Your task to perform on an android device: turn off priority inbox in the gmail app Image 0: 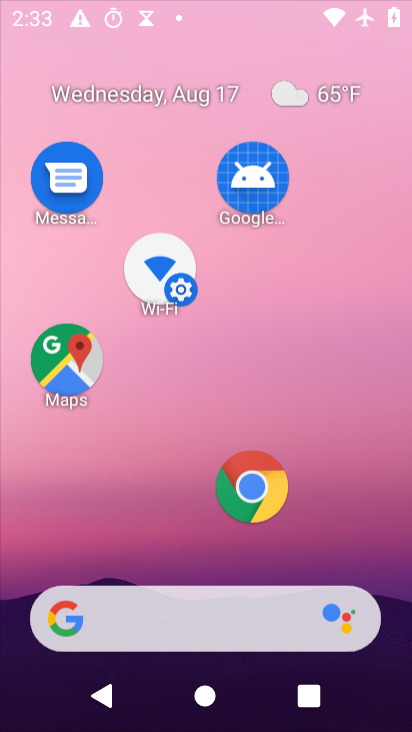
Step 0: press home button
Your task to perform on an android device: turn off priority inbox in the gmail app Image 1: 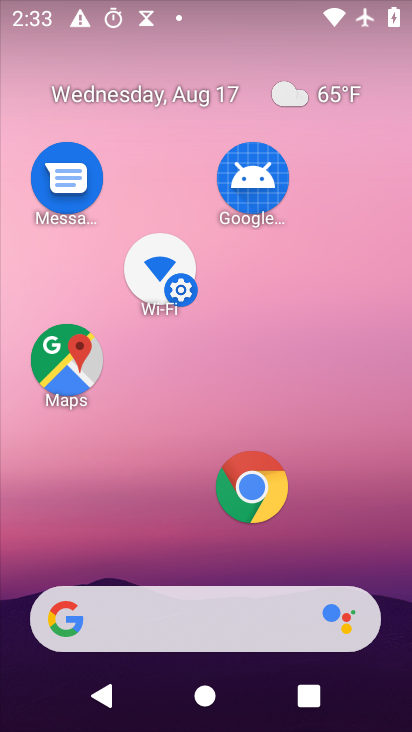
Step 1: drag from (331, 235) to (283, 9)
Your task to perform on an android device: turn off priority inbox in the gmail app Image 2: 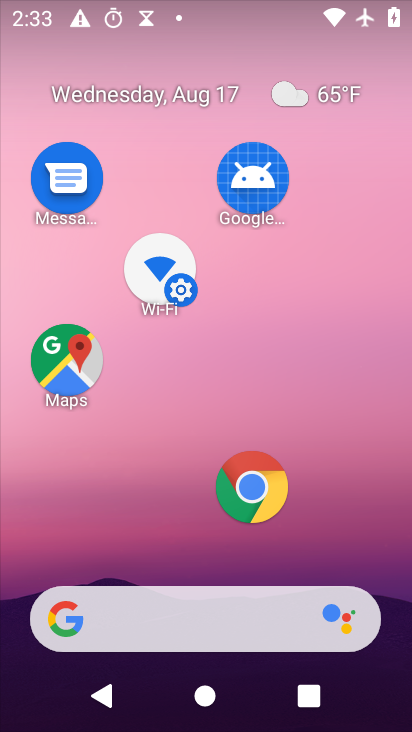
Step 2: drag from (352, 206) to (340, 3)
Your task to perform on an android device: turn off priority inbox in the gmail app Image 3: 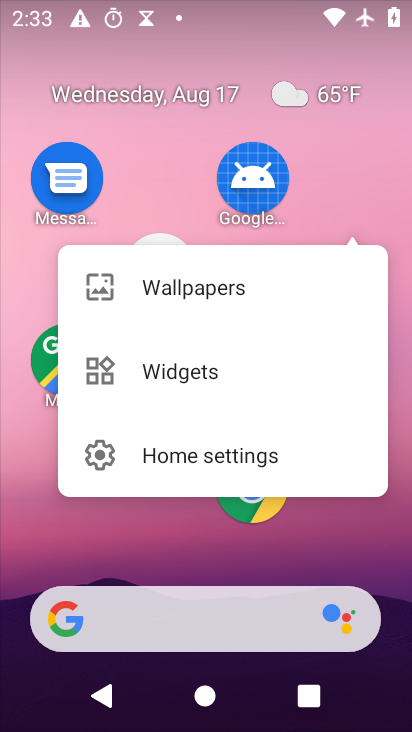
Step 3: click (335, 528)
Your task to perform on an android device: turn off priority inbox in the gmail app Image 4: 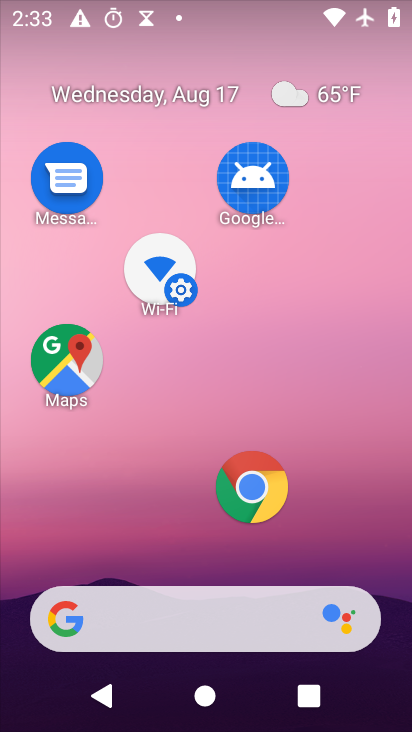
Step 4: drag from (348, 39) to (270, 4)
Your task to perform on an android device: turn off priority inbox in the gmail app Image 5: 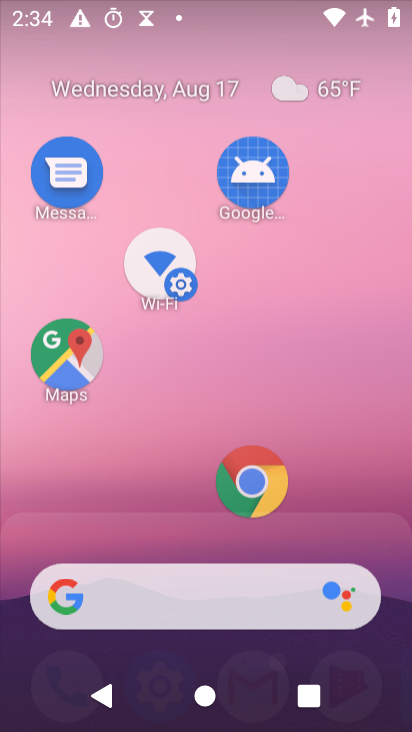
Step 5: drag from (243, 95) to (266, 20)
Your task to perform on an android device: turn off priority inbox in the gmail app Image 6: 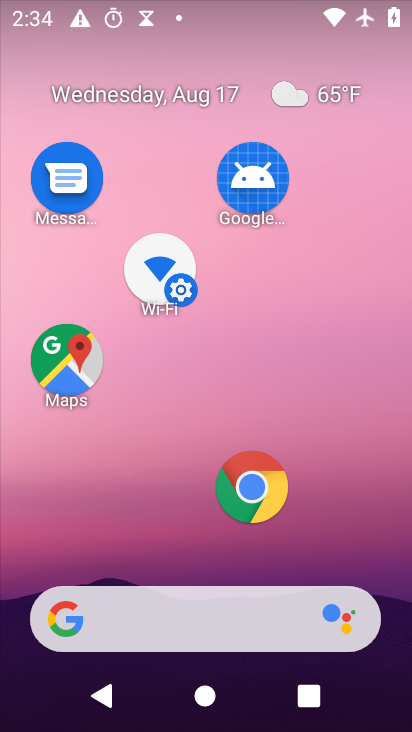
Step 6: drag from (203, 424) to (307, 8)
Your task to perform on an android device: turn off priority inbox in the gmail app Image 7: 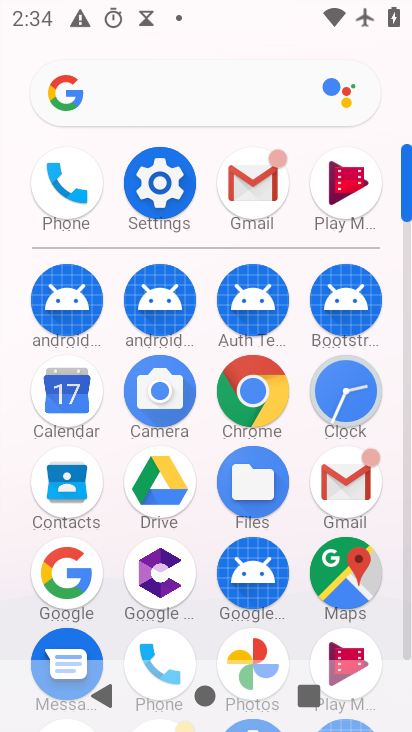
Step 7: click (248, 187)
Your task to perform on an android device: turn off priority inbox in the gmail app Image 8: 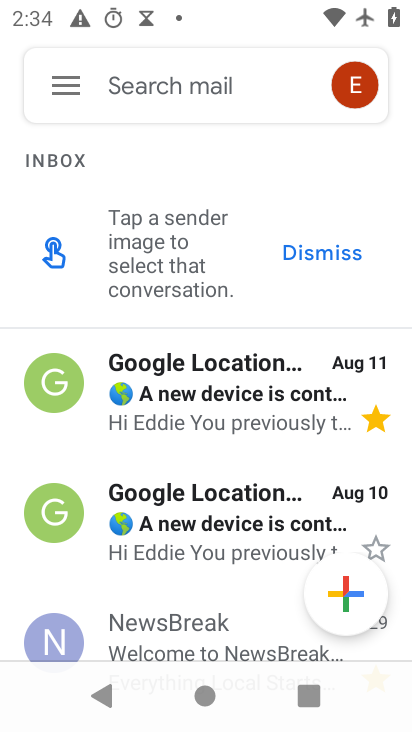
Step 8: click (56, 72)
Your task to perform on an android device: turn off priority inbox in the gmail app Image 9: 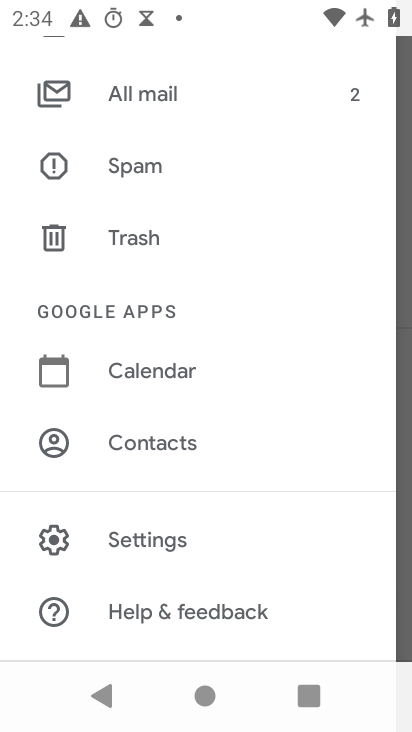
Step 9: drag from (287, 139) to (341, 642)
Your task to perform on an android device: turn off priority inbox in the gmail app Image 10: 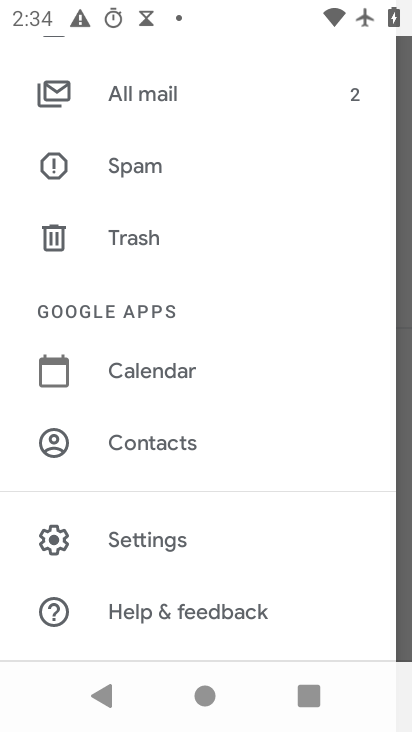
Step 10: drag from (235, 299) to (105, 714)
Your task to perform on an android device: turn off priority inbox in the gmail app Image 11: 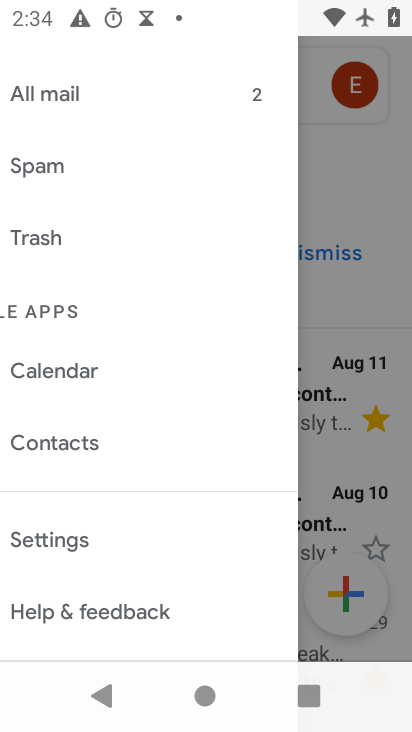
Step 11: click (76, 546)
Your task to perform on an android device: turn off priority inbox in the gmail app Image 12: 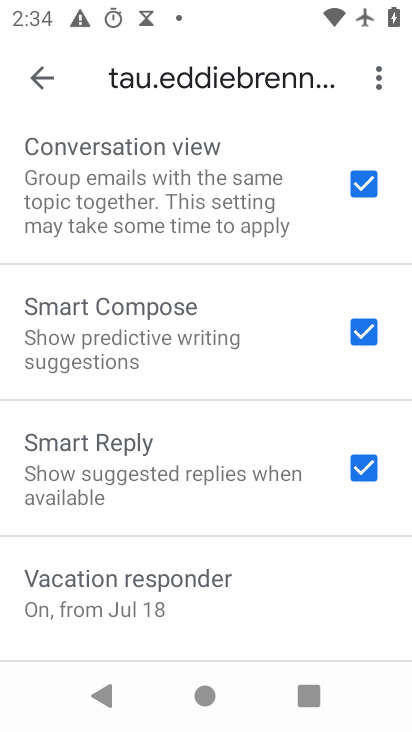
Step 12: drag from (273, 118) to (88, 725)
Your task to perform on an android device: turn off priority inbox in the gmail app Image 13: 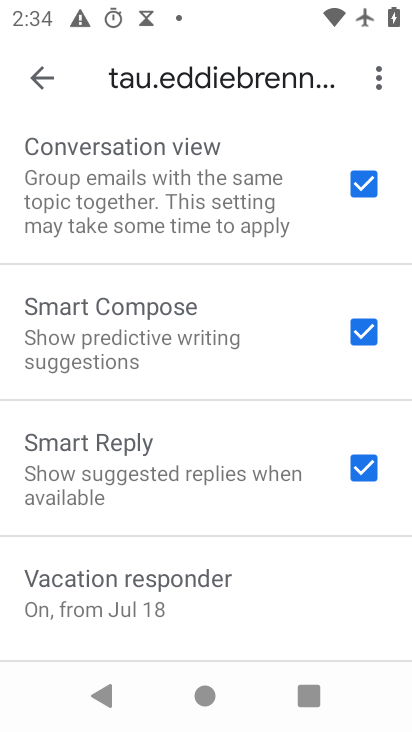
Step 13: drag from (153, 489) to (71, 723)
Your task to perform on an android device: turn off priority inbox in the gmail app Image 14: 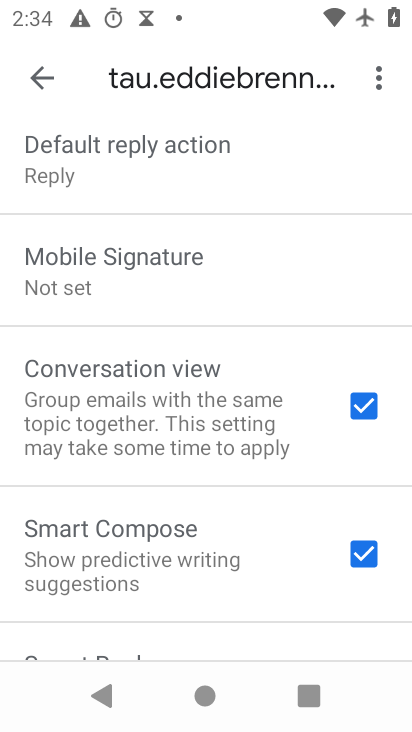
Step 14: drag from (188, 121) to (92, 730)
Your task to perform on an android device: turn off priority inbox in the gmail app Image 15: 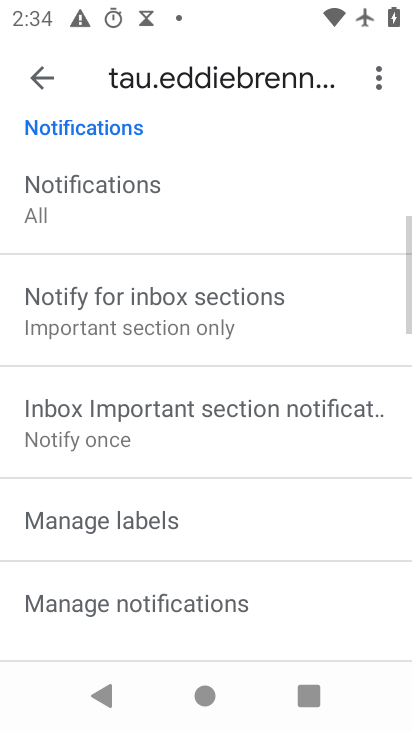
Step 15: drag from (228, 210) to (108, 707)
Your task to perform on an android device: turn off priority inbox in the gmail app Image 16: 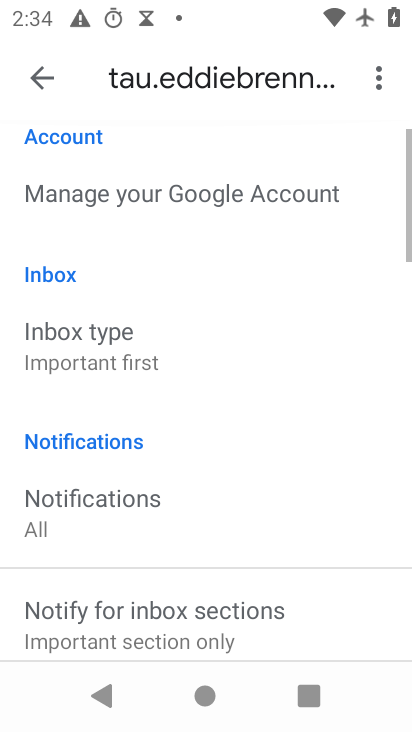
Step 16: click (85, 390)
Your task to perform on an android device: turn off priority inbox in the gmail app Image 17: 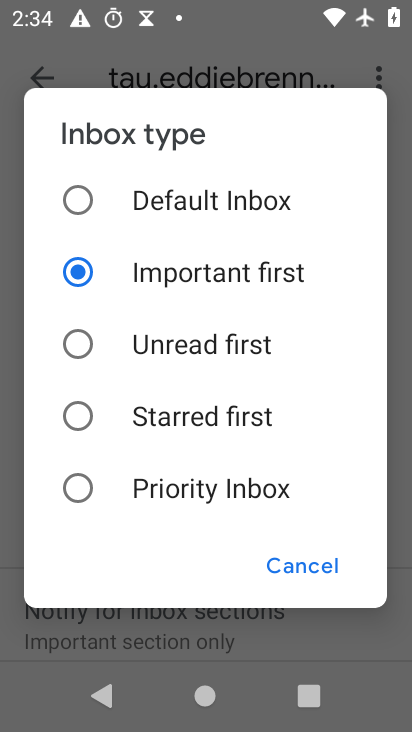
Step 17: task complete